Your task to perform on an android device: turn off data saver in the chrome app Image 0: 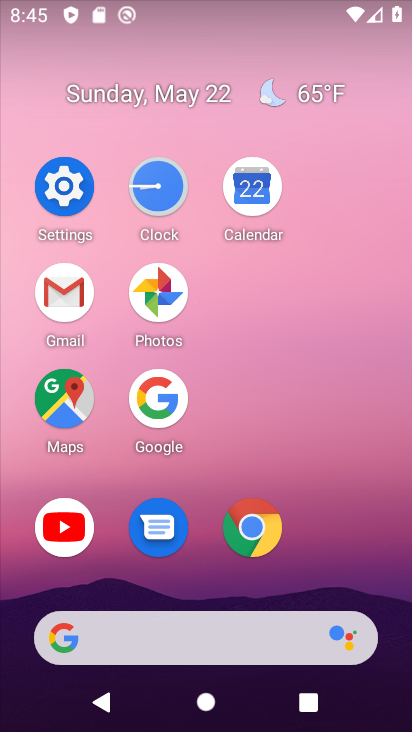
Step 0: click (247, 526)
Your task to perform on an android device: turn off data saver in the chrome app Image 1: 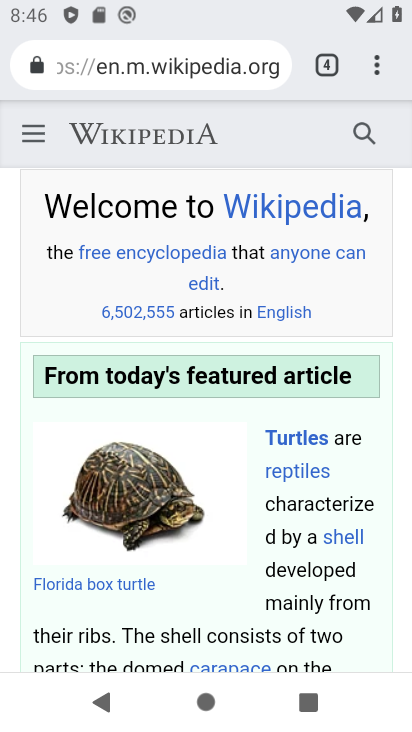
Step 1: click (368, 59)
Your task to perform on an android device: turn off data saver in the chrome app Image 2: 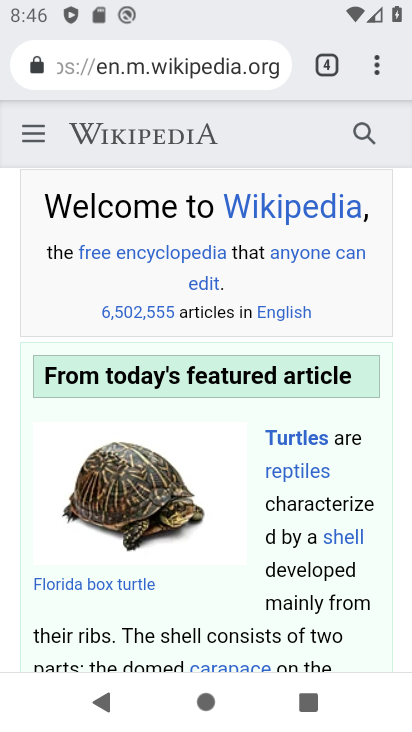
Step 2: click (379, 68)
Your task to perform on an android device: turn off data saver in the chrome app Image 3: 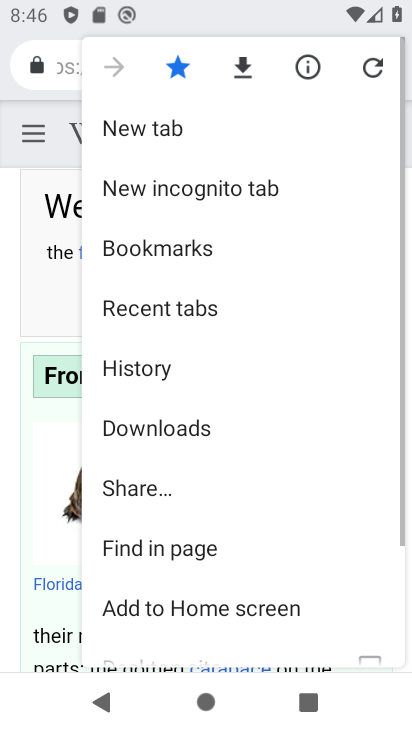
Step 3: drag from (256, 420) to (250, 9)
Your task to perform on an android device: turn off data saver in the chrome app Image 4: 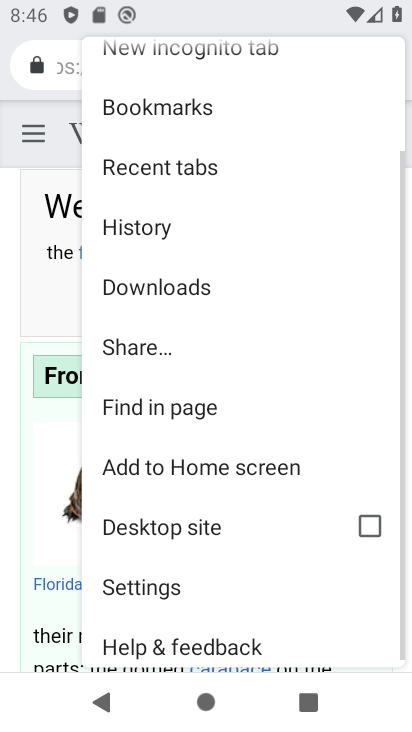
Step 4: click (180, 568)
Your task to perform on an android device: turn off data saver in the chrome app Image 5: 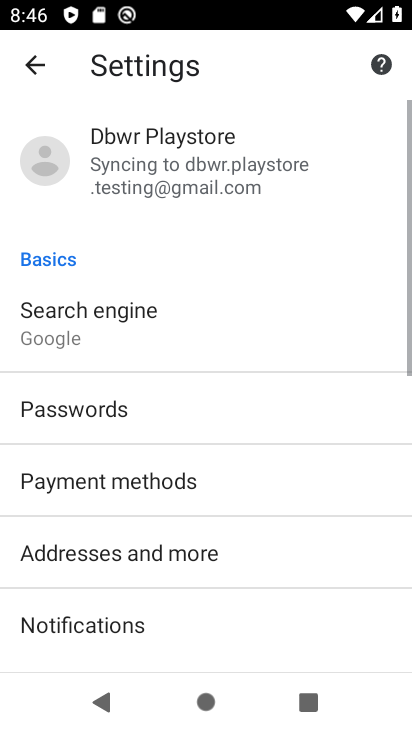
Step 5: drag from (179, 555) to (193, 122)
Your task to perform on an android device: turn off data saver in the chrome app Image 6: 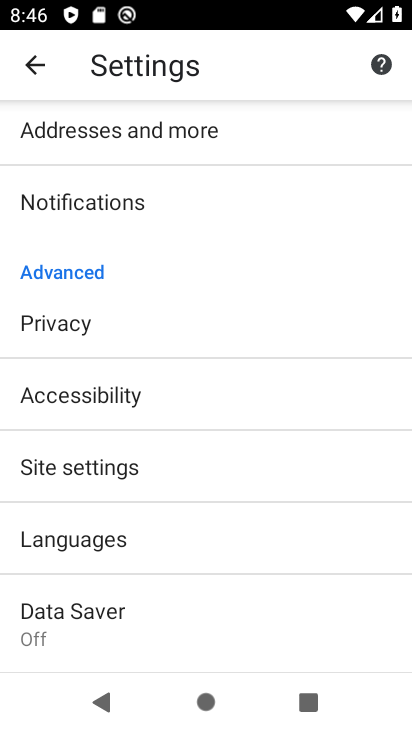
Step 6: click (165, 601)
Your task to perform on an android device: turn off data saver in the chrome app Image 7: 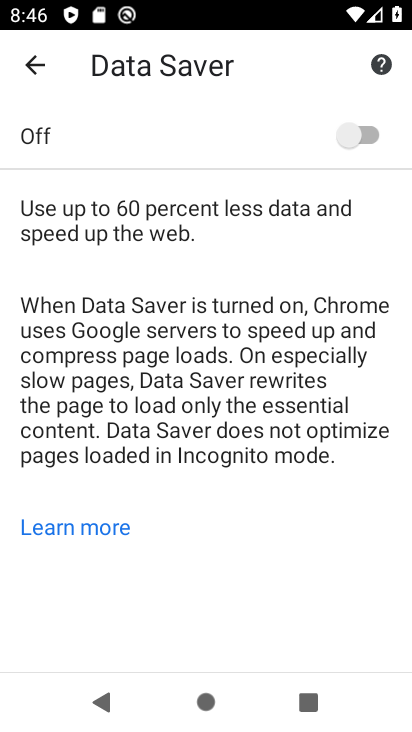
Step 7: task complete